Your task to perform on an android device: When is my next meeting? Image 0: 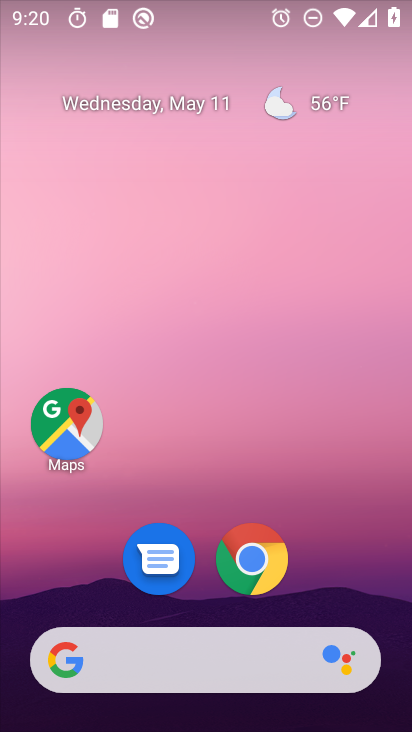
Step 0: click (174, 107)
Your task to perform on an android device: When is my next meeting? Image 1: 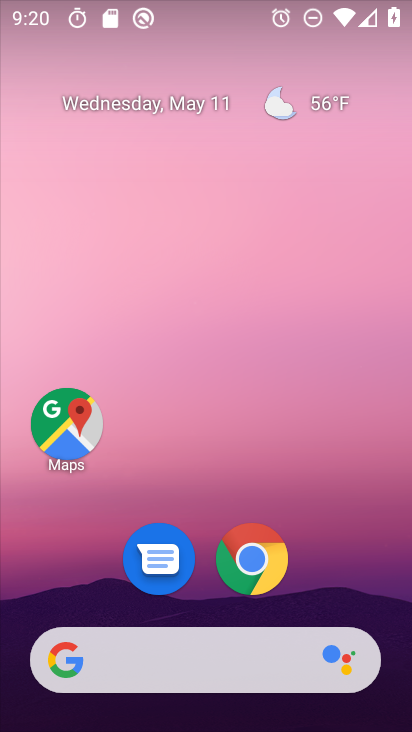
Step 1: click (174, 106)
Your task to perform on an android device: When is my next meeting? Image 2: 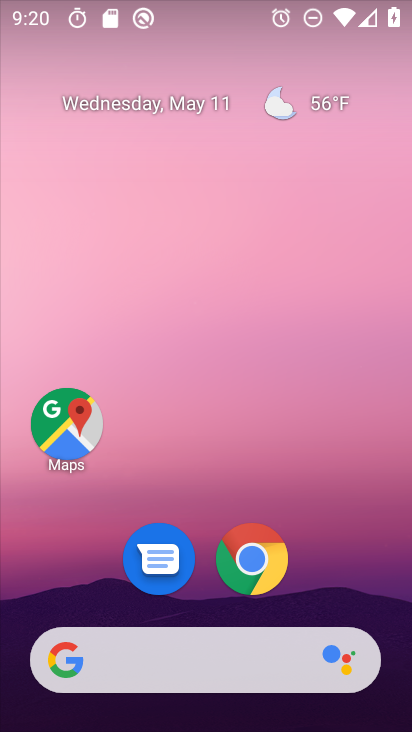
Step 2: click (202, 96)
Your task to perform on an android device: When is my next meeting? Image 3: 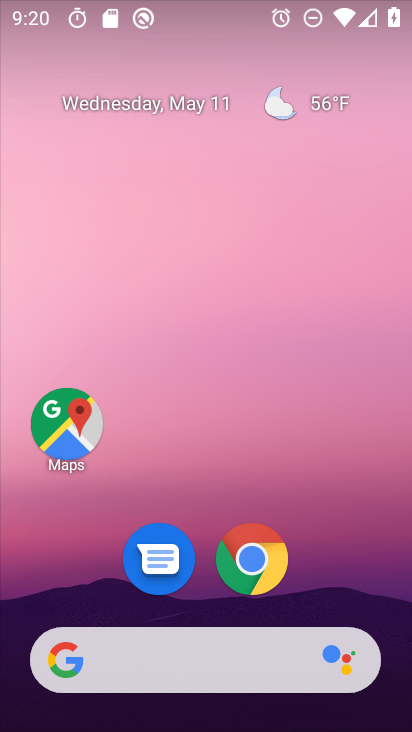
Step 3: drag from (325, 579) to (309, 245)
Your task to perform on an android device: When is my next meeting? Image 4: 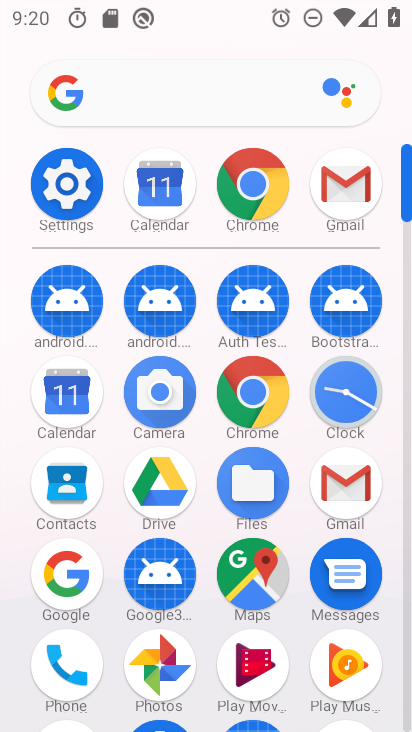
Step 4: click (173, 192)
Your task to perform on an android device: When is my next meeting? Image 5: 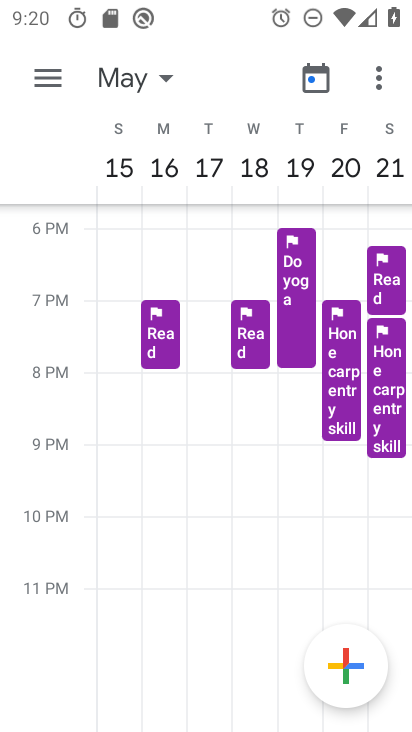
Step 5: click (48, 67)
Your task to perform on an android device: When is my next meeting? Image 6: 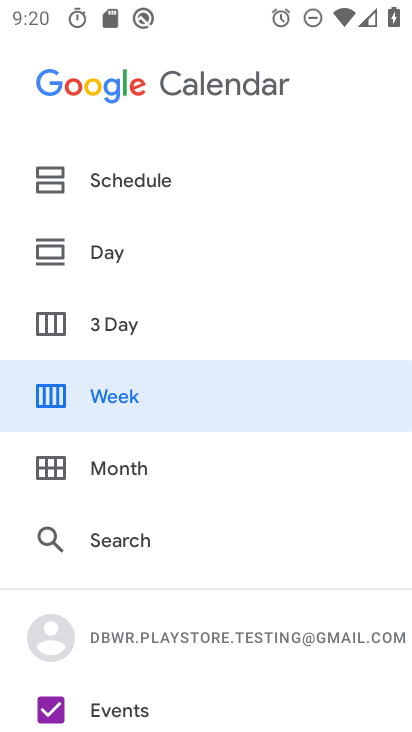
Step 6: click (125, 183)
Your task to perform on an android device: When is my next meeting? Image 7: 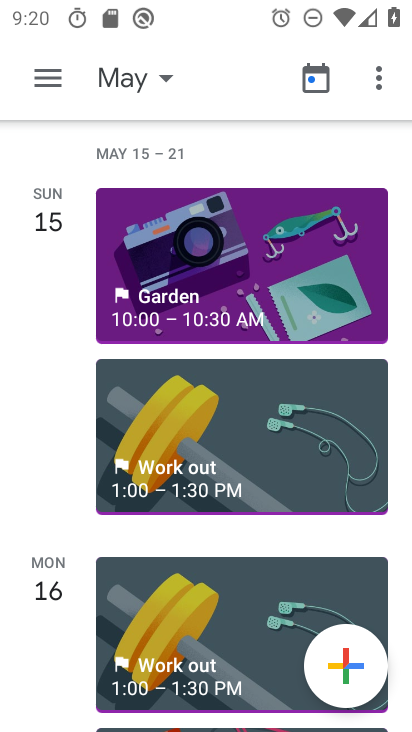
Step 7: task complete